Your task to perform on an android device: turn off priority inbox in the gmail app Image 0: 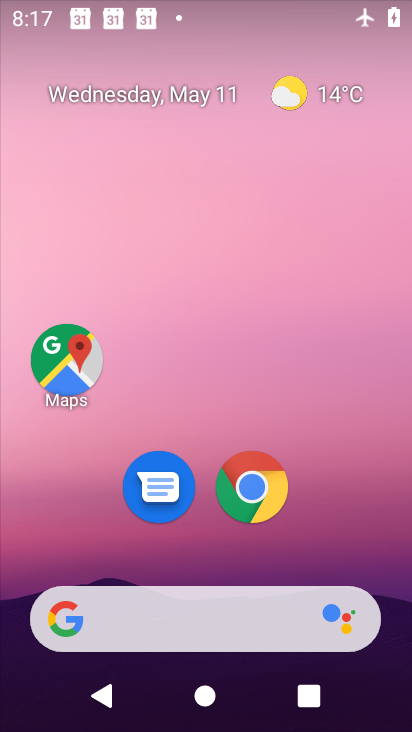
Step 0: drag from (212, 727) to (209, 103)
Your task to perform on an android device: turn off priority inbox in the gmail app Image 1: 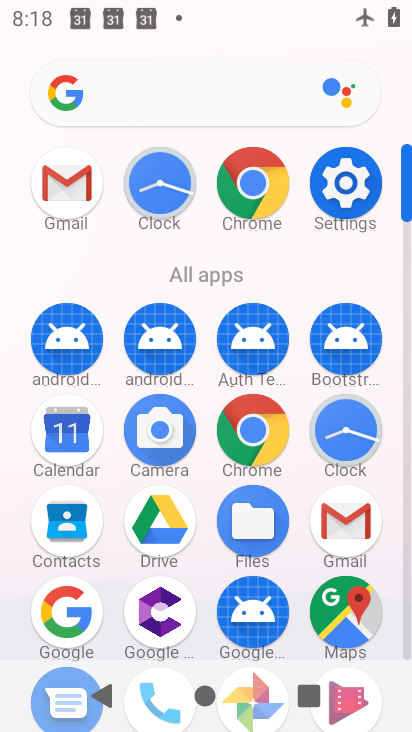
Step 1: click (341, 527)
Your task to perform on an android device: turn off priority inbox in the gmail app Image 2: 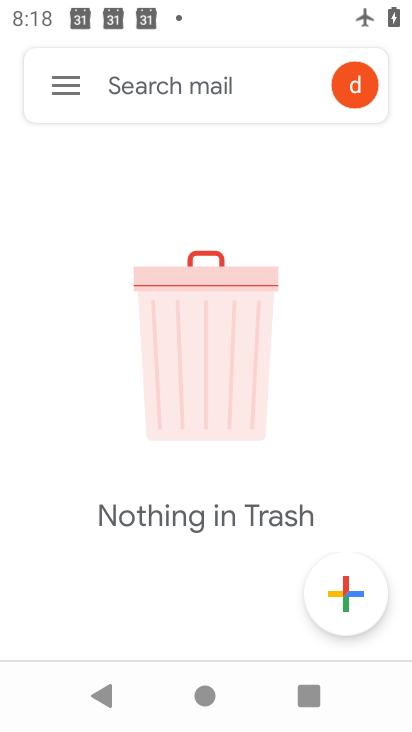
Step 2: click (66, 85)
Your task to perform on an android device: turn off priority inbox in the gmail app Image 3: 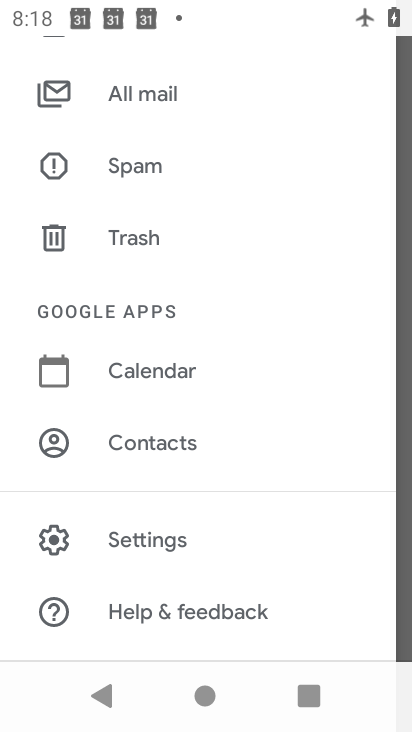
Step 3: drag from (154, 592) to (150, 272)
Your task to perform on an android device: turn off priority inbox in the gmail app Image 4: 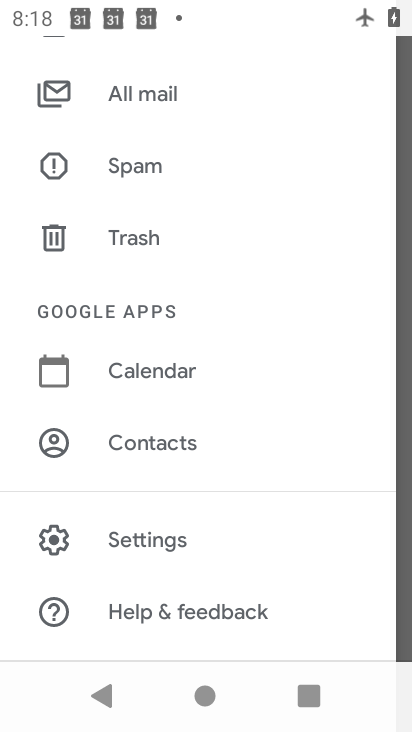
Step 4: click (158, 539)
Your task to perform on an android device: turn off priority inbox in the gmail app Image 5: 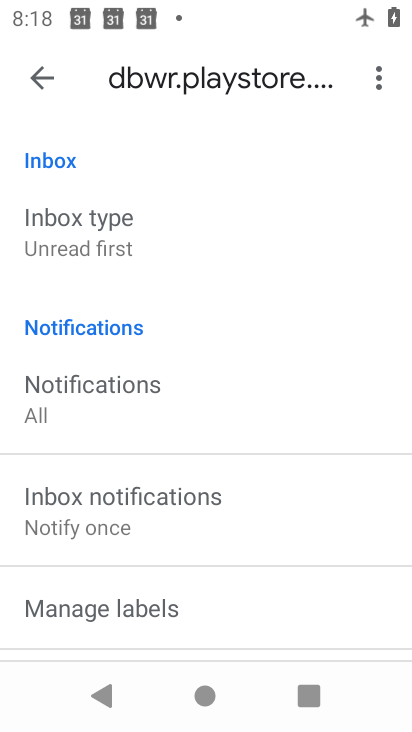
Step 5: task complete